Your task to perform on an android device: Open Chrome and go to settings Image 0: 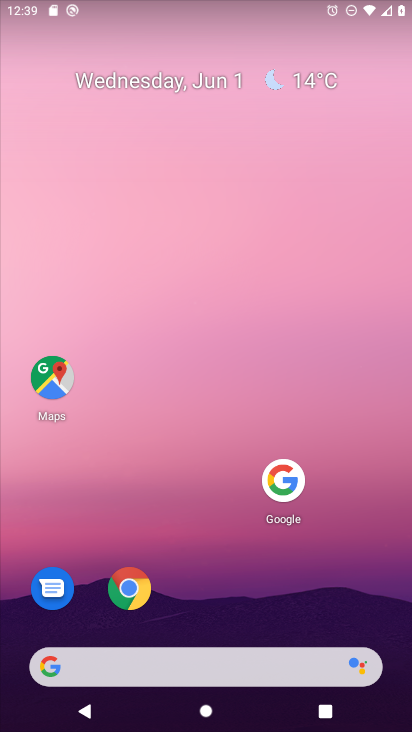
Step 0: press home button
Your task to perform on an android device: Open Chrome and go to settings Image 1: 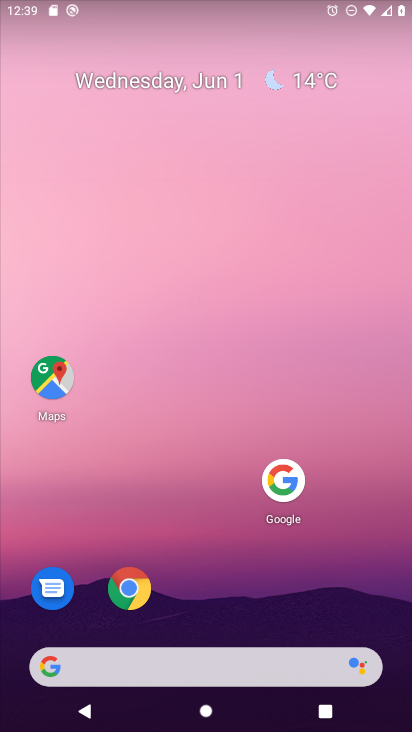
Step 1: drag from (151, 665) to (287, 130)
Your task to perform on an android device: Open Chrome and go to settings Image 2: 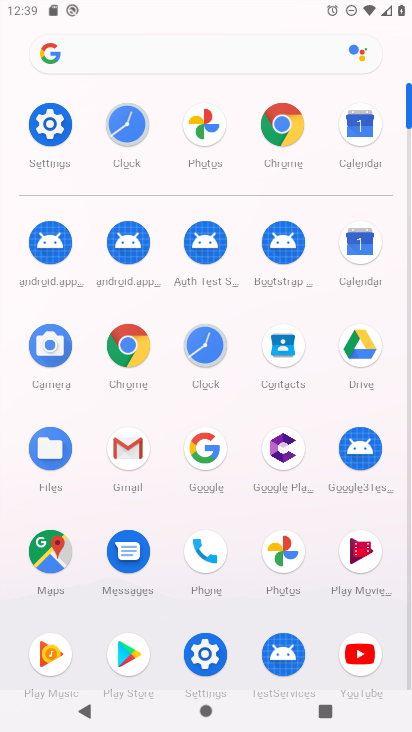
Step 2: click (281, 123)
Your task to perform on an android device: Open Chrome and go to settings Image 3: 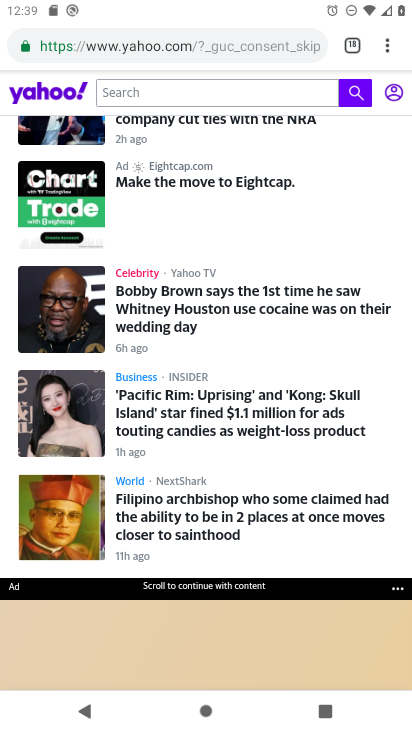
Step 3: task complete